Your task to perform on an android device: open app "TextNow: Call + Text Unlimited" Image 0: 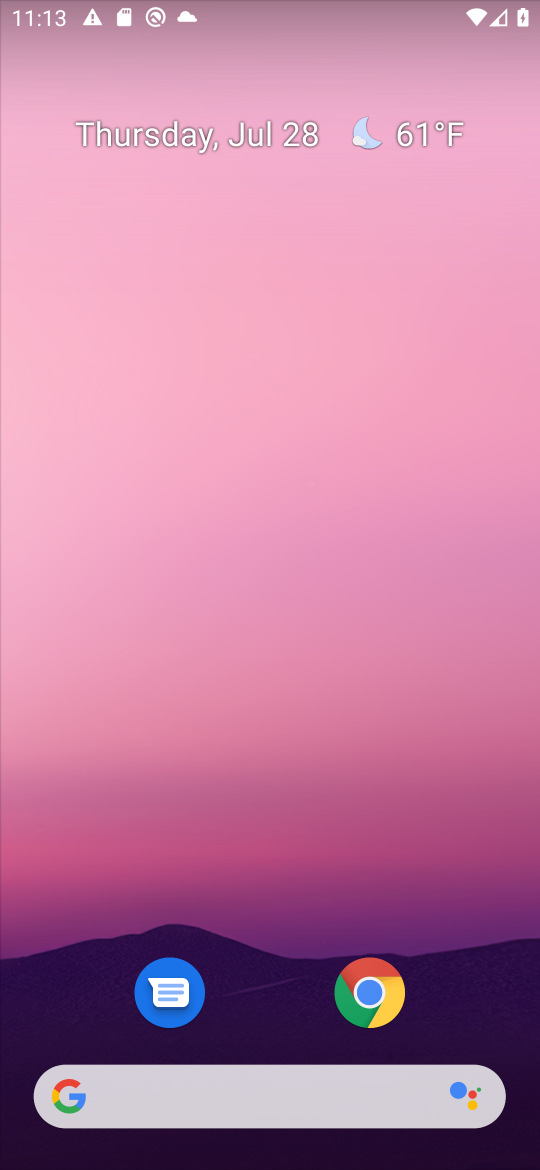
Step 0: drag from (209, 1097) to (266, 65)
Your task to perform on an android device: open app "TextNow: Call + Text Unlimited" Image 1: 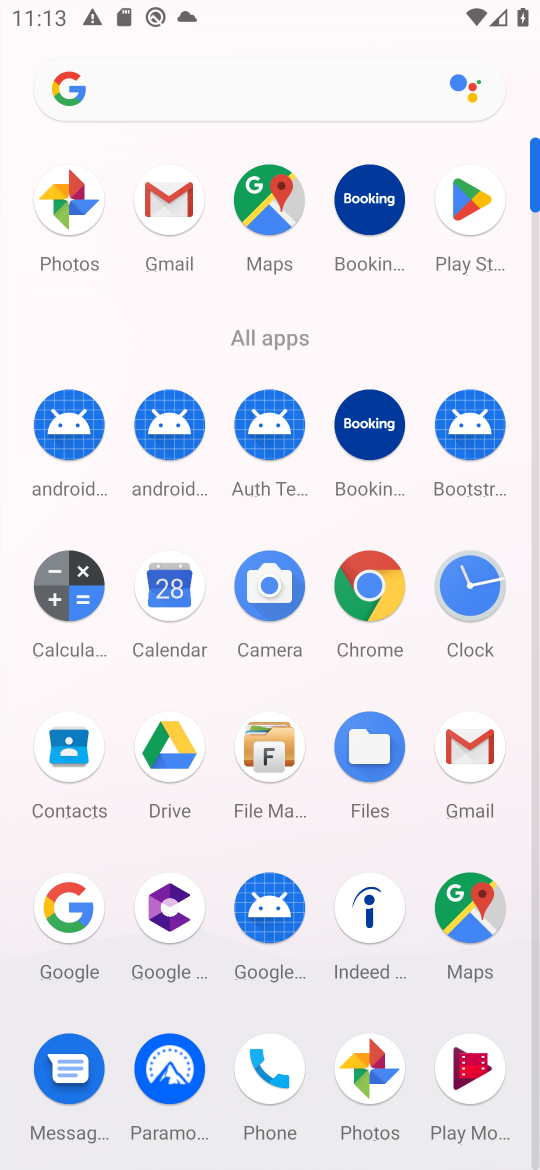
Step 1: click (474, 199)
Your task to perform on an android device: open app "TextNow: Call + Text Unlimited" Image 2: 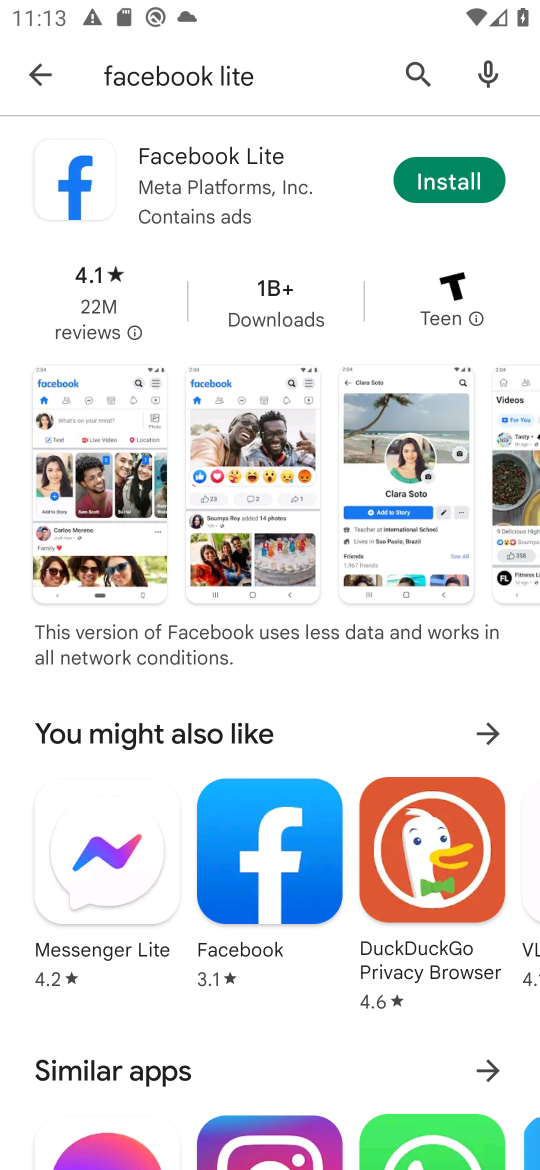
Step 2: click (412, 69)
Your task to perform on an android device: open app "TextNow: Call + Text Unlimited" Image 3: 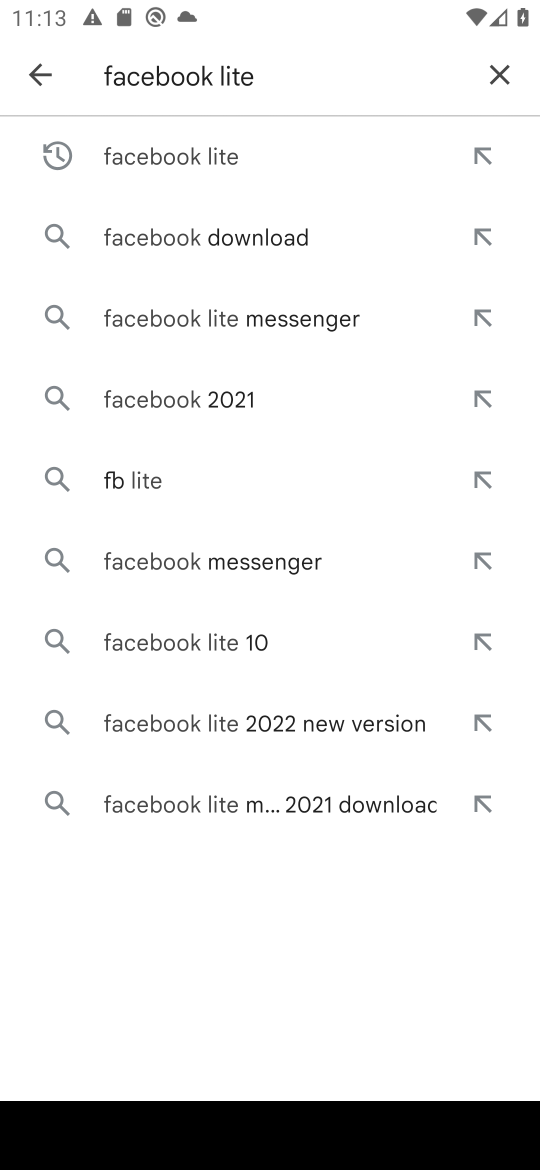
Step 3: click (501, 79)
Your task to perform on an android device: open app "TextNow: Call + Text Unlimited" Image 4: 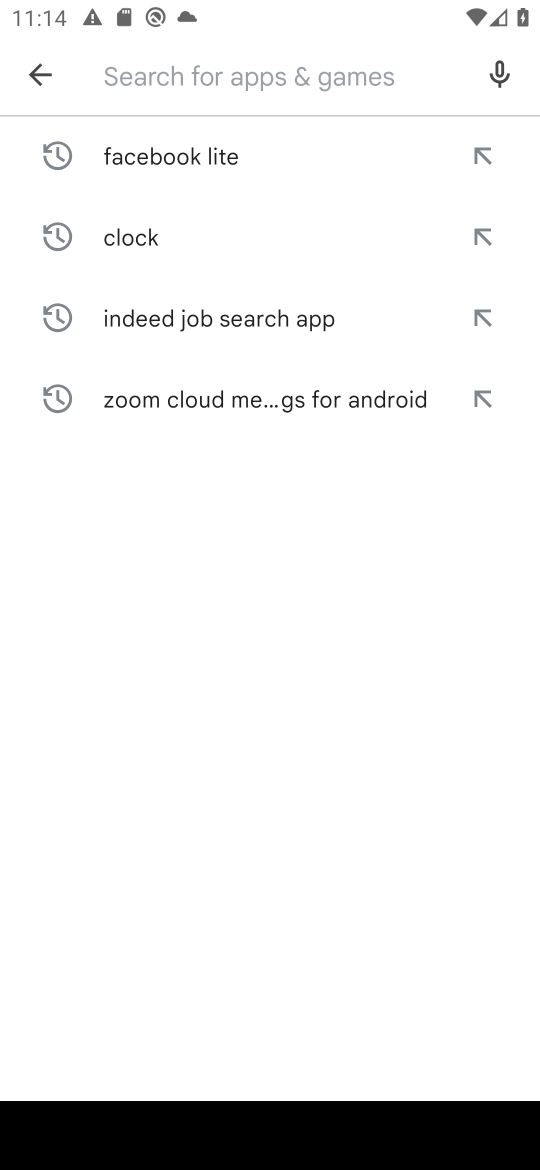
Step 4: click (168, 76)
Your task to perform on an android device: open app "TextNow: Call + Text Unlimited" Image 5: 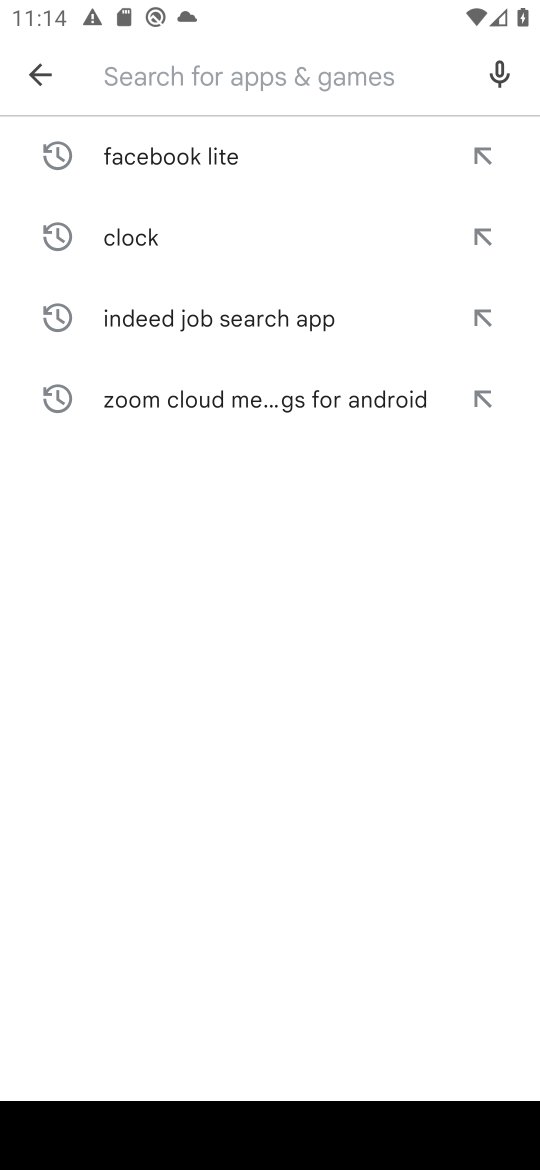
Step 5: type "TextNow: Call + Text Unlimited"
Your task to perform on an android device: open app "TextNow: Call + Text Unlimited" Image 6: 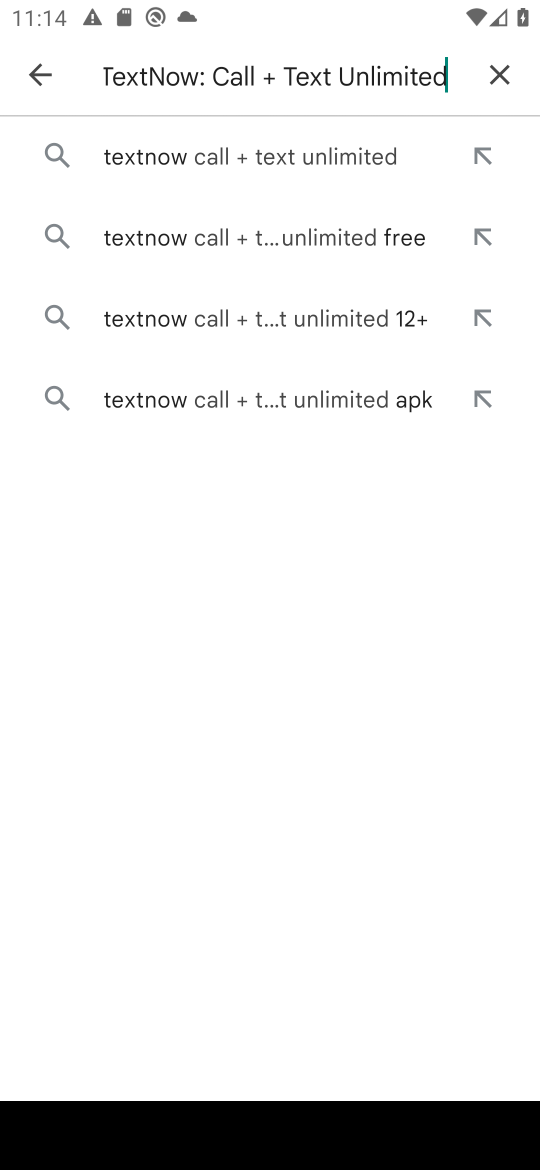
Step 6: type ""
Your task to perform on an android device: open app "TextNow: Call + Text Unlimited" Image 7: 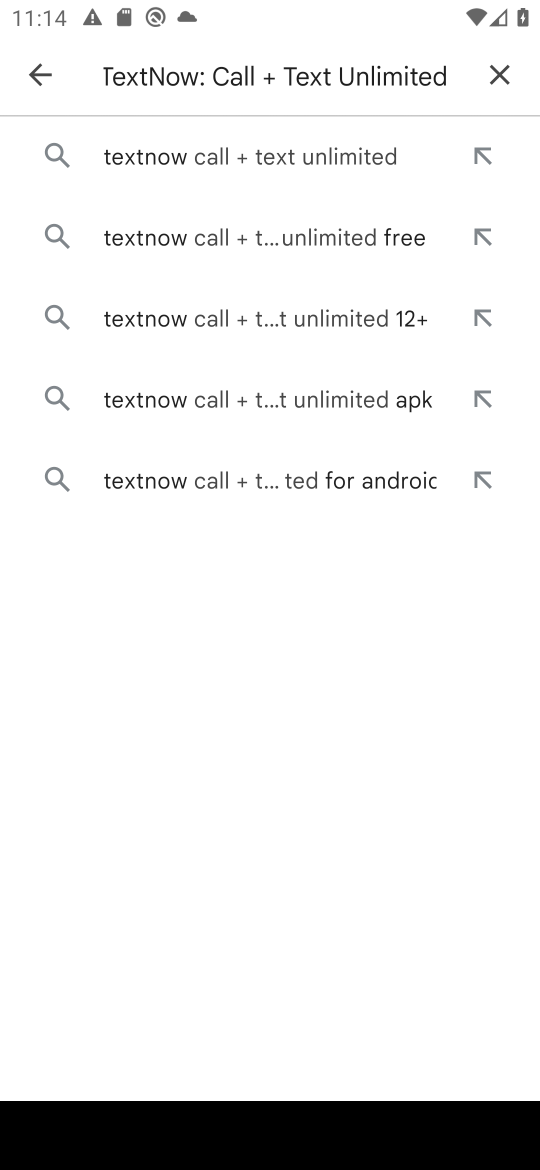
Step 7: click (273, 155)
Your task to perform on an android device: open app "TextNow: Call + Text Unlimited" Image 8: 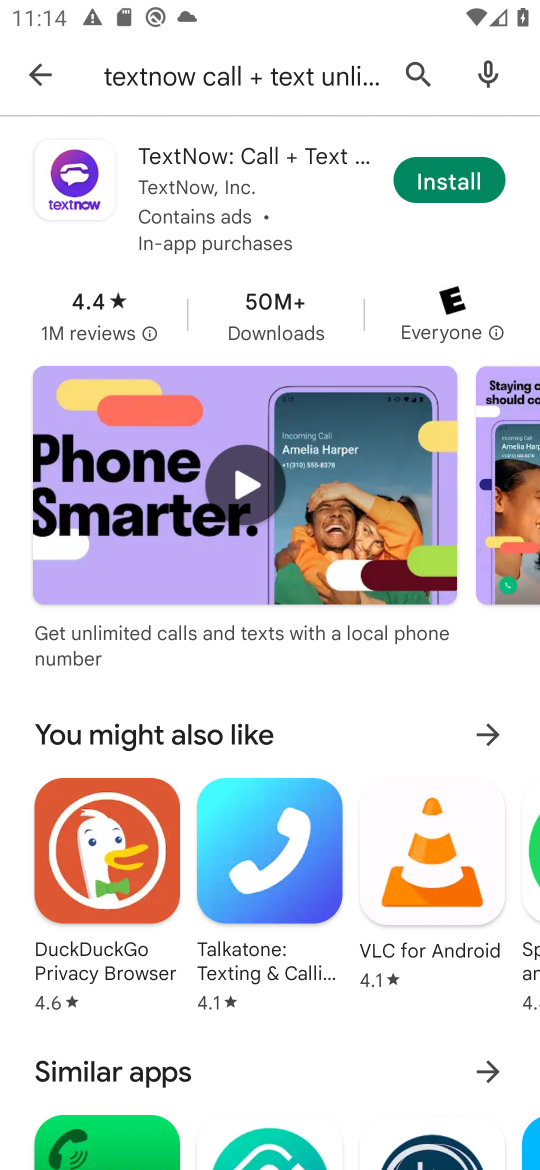
Step 8: task complete